Your task to perform on an android device: turn off javascript in the chrome app Image 0: 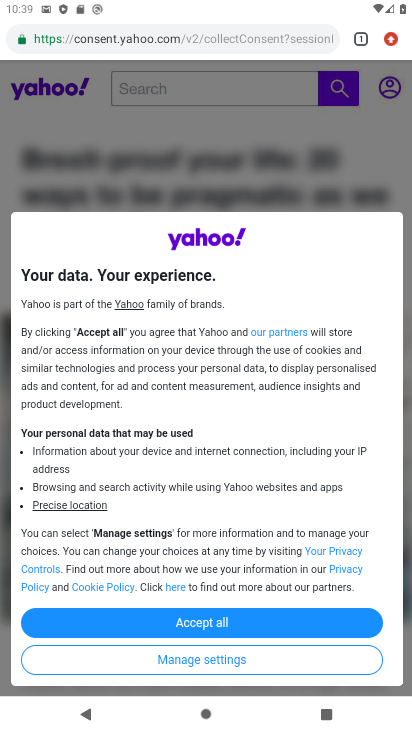
Step 0: click (388, 39)
Your task to perform on an android device: turn off javascript in the chrome app Image 1: 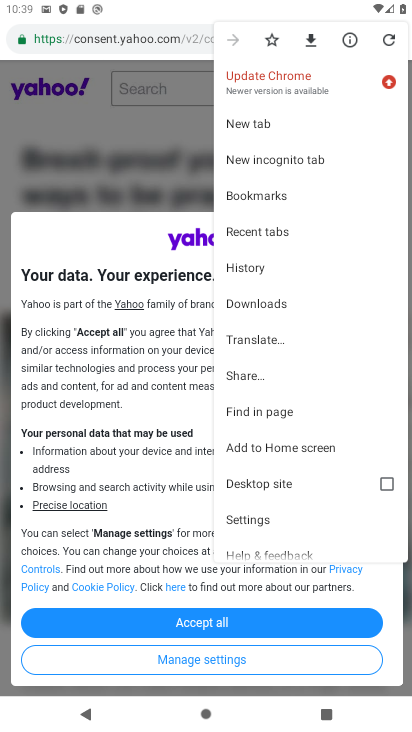
Step 1: click (261, 519)
Your task to perform on an android device: turn off javascript in the chrome app Image 2: 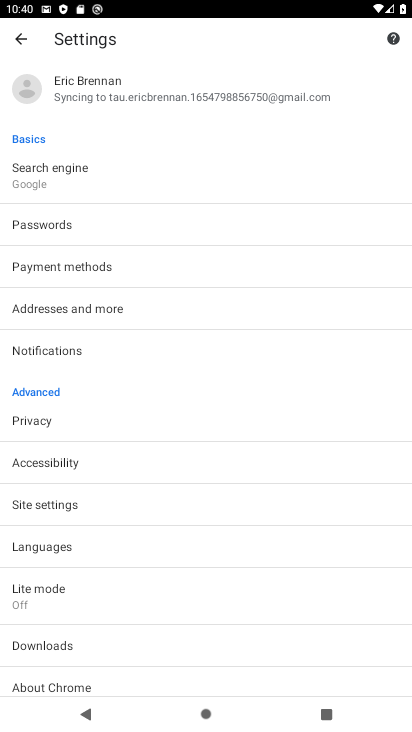
Step 2: drag from (163, 640) to (221, 232)
Your task to perform on an android device: turn off javascript in the chrome app Image 3: 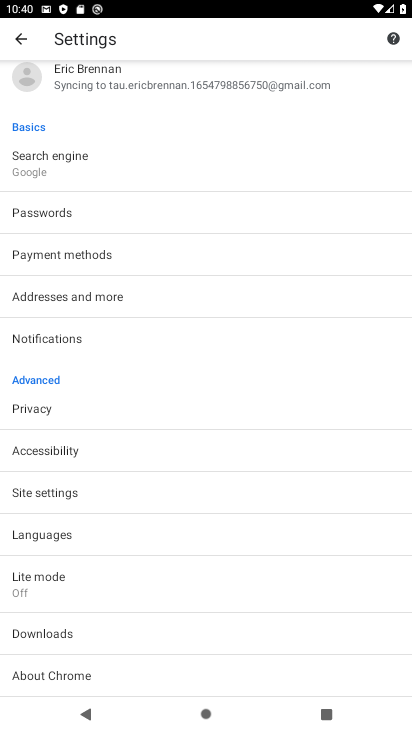
Step 3: click (140, 496)
Your task to perform on an android device: turn off javascript in the chrome app Image 4: 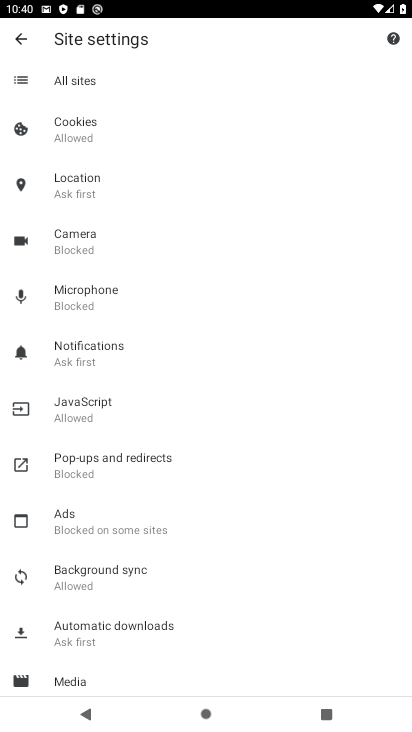
Step 4: click (162, 420)
Your task to perform on an android device: turn off javascript in the chrome app Image 5: 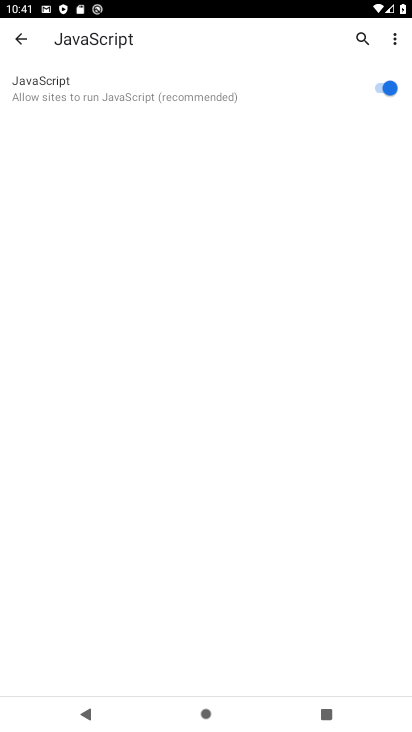
Step 5: click (380, 88)
Your task to perform on an android device: turn off javascript in the chrome app Image 6: 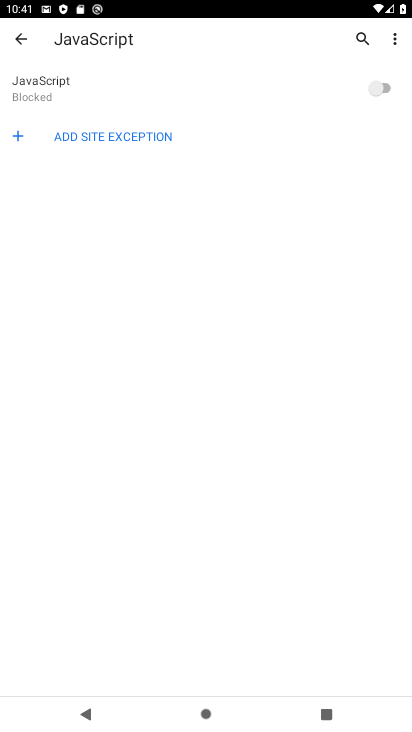
Step 6: task complete